Your task to perform on an android device: toggle wifi Image 0: 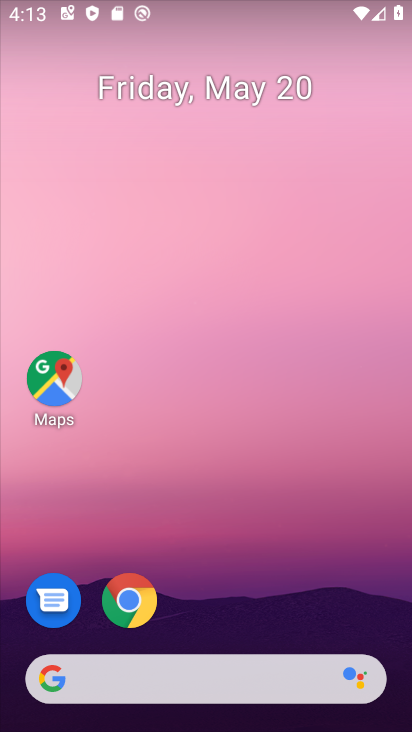
Step 0: drag from (304, 576) to (199, 84)
Your task to perform on an android device: toggle wifi Image 1: 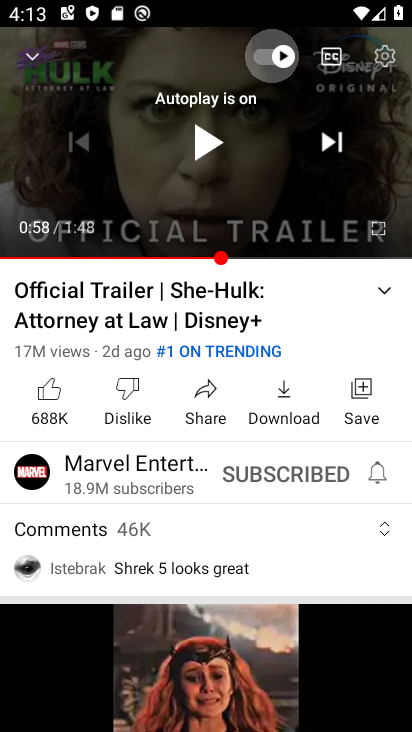
Step 1: press back button
Your task to perform on an android device: toggle wifi Image 2: 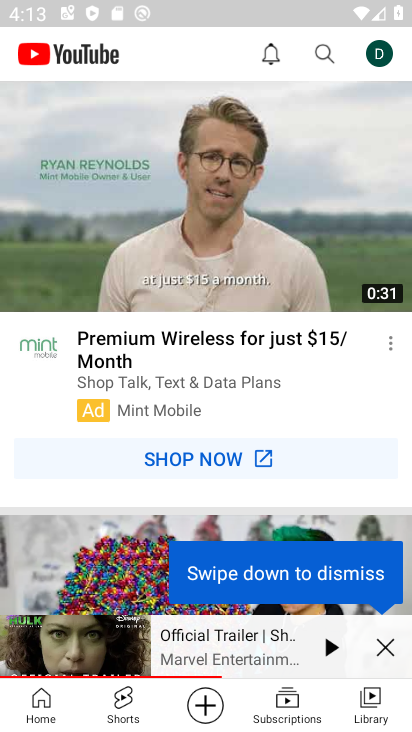
Step 2: press back button
Your task to perform on an android device: toggle wifi Image 3: 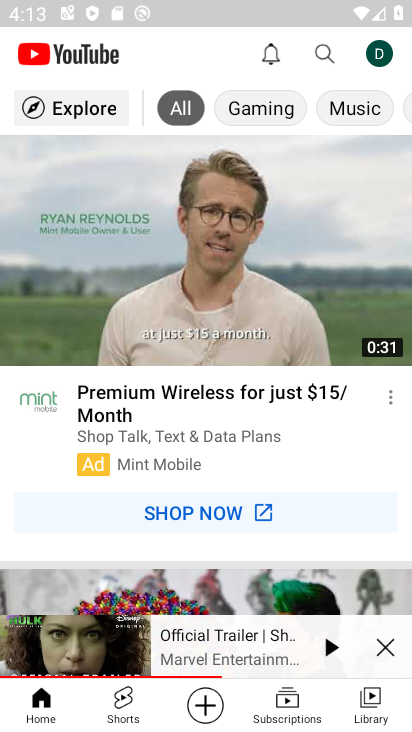
Step 3: press back button
Your task to perform on an android device: toggle wifi Image 4: 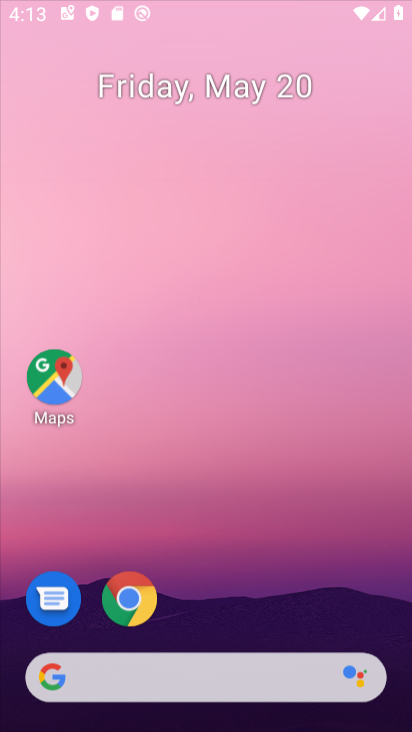
Step 4: press back button
Your task to perform on an android device: toggle wifi Image 5: 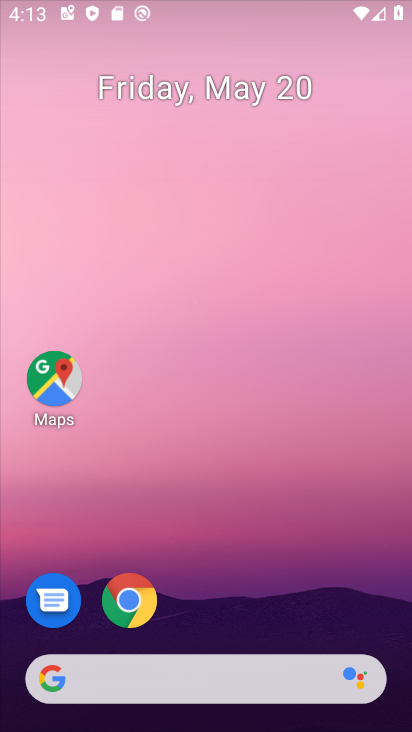
Step 5: press back button
Your task to perform on an android device: toggle wifi Image 6: 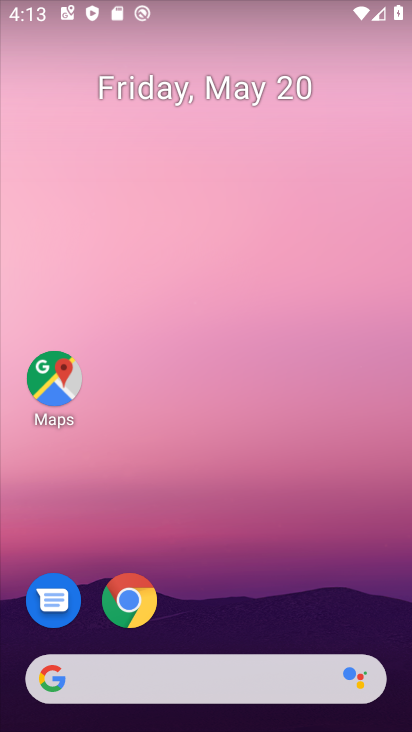
Step 6: drag from (301, 586) to (232, 48)
Your task to perform on an android device: toggle wifi Image 7: 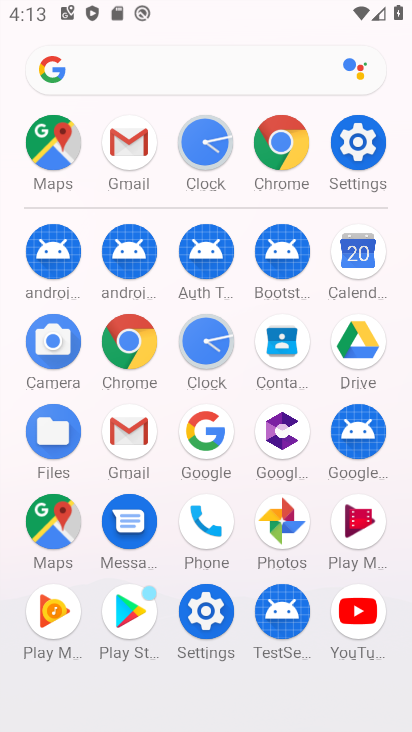
Step 7: click (356, 138)
Your task to perform on an android device: toggle wifi Image 8: 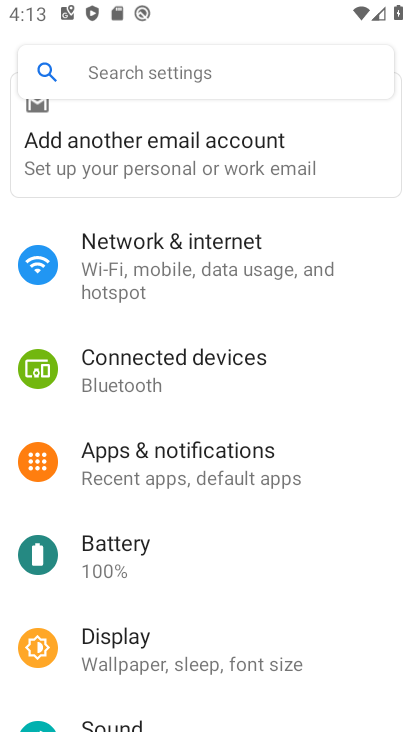
Step 8: click (200, 227)
Your task to perform on an android device: toggle wifi Image 9: 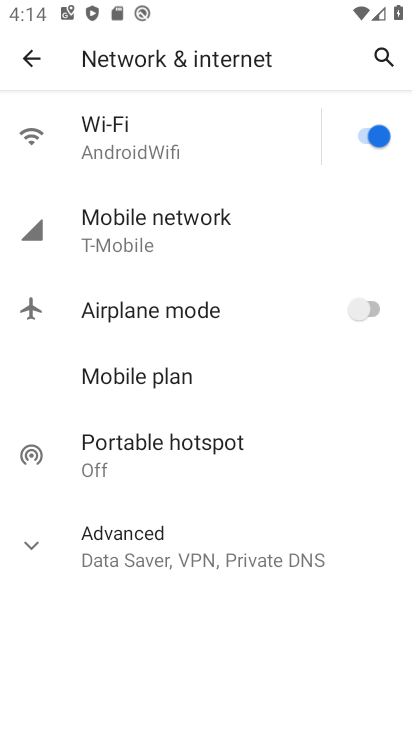
Step 9: click (27, 546)
Your task to perform on an android device: toggle wifi Image 10: 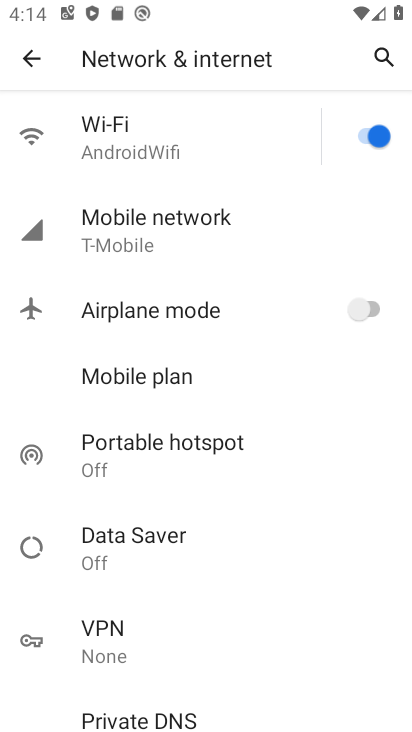
Step 10: click (375, 141)
Your task to perform on an android device: toggle wifi Image 11: 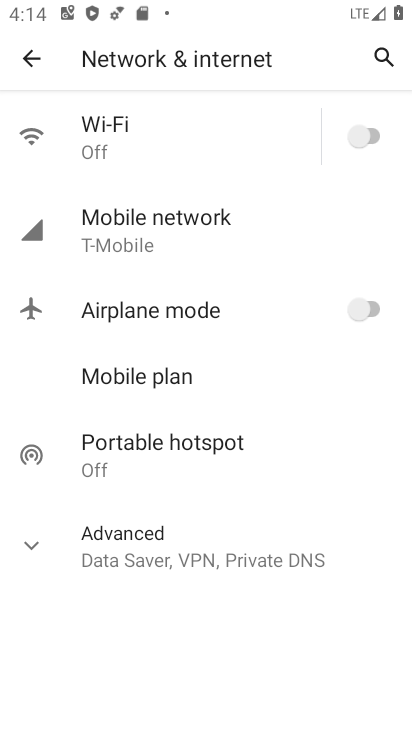
Step 11: task complete